Your task to perform on an android device: turn on priority inbox in the gmail app Image 0: 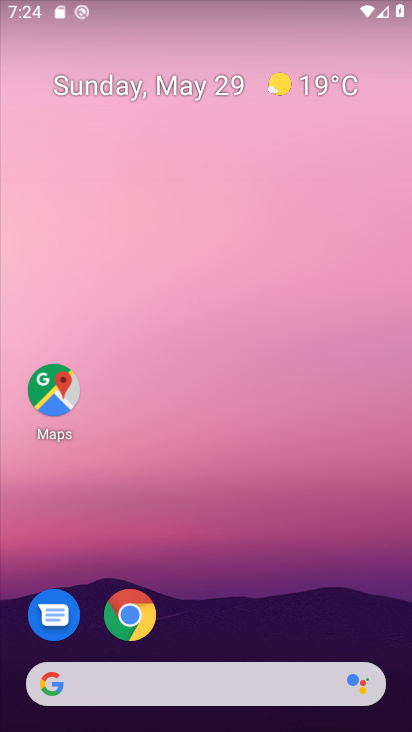
Step 0: drag from (119, 717) to (127, 2)
Your task to perform on an android device: turn on priority inbox in the gmail app Image 1: 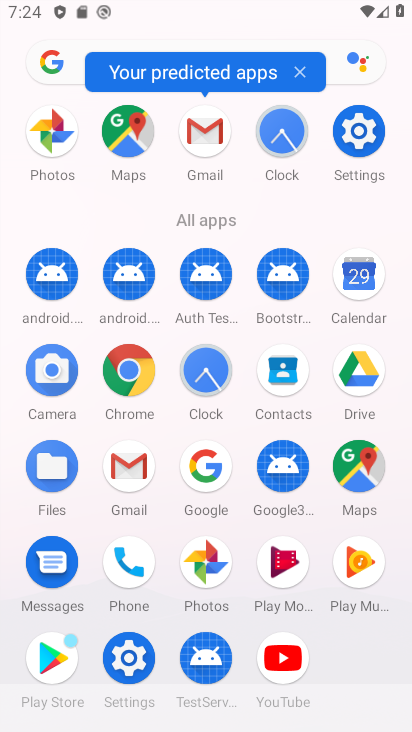
Step 1: click (139, 476)
Your task to perform on an android device: turn on priority inbox in the gmail app Image 2: 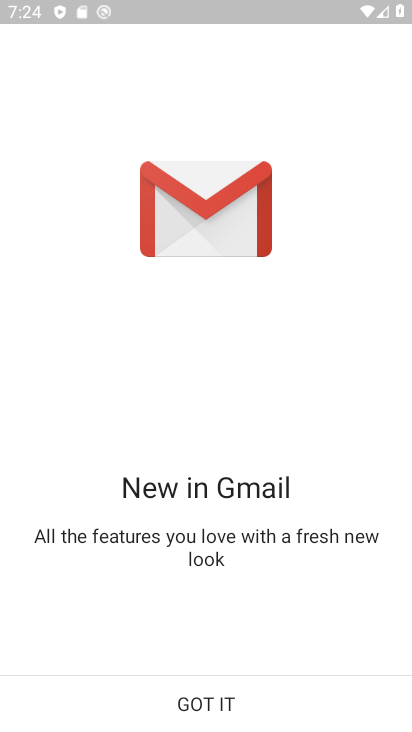
Step 2: click (225, 719)
Your task to perform on an android device: turn on priority inbox in the gmail app Image 3: 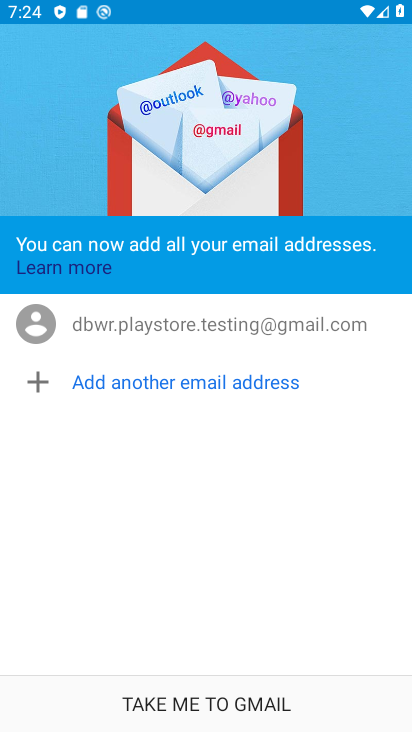
Step 3: click (223, 706)
Your task to perform on an android device: turn on priority inbox in the gmail app Image 4: 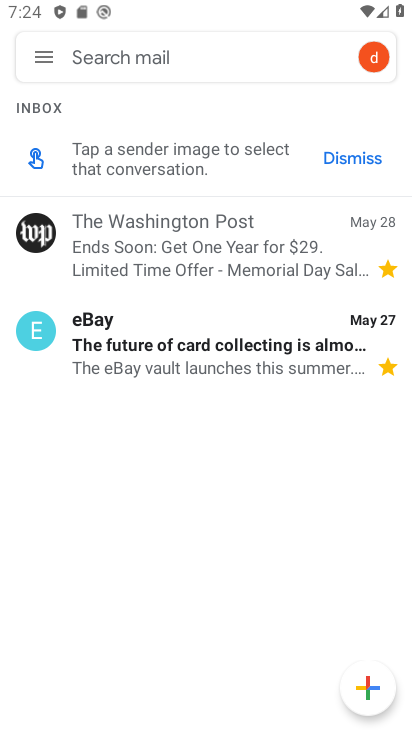
Step 4: click (50, 57)
Your task to perform on an android device: turn on priority inbox in the gmail app Image 5: 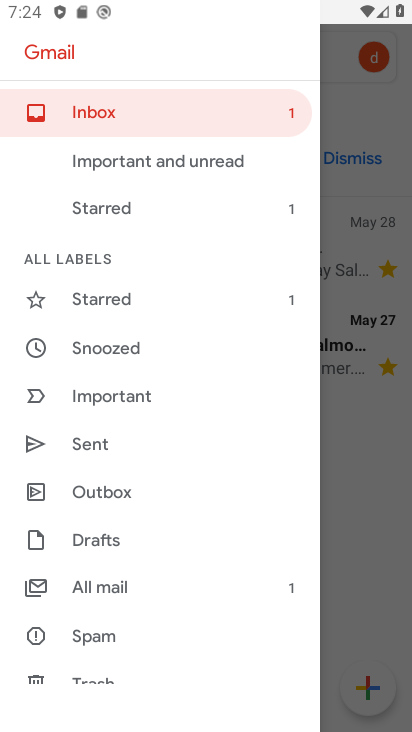
Step 5: drag from (155, 672) to (158, 139)
Your task to perform on an android device: turn on priority inbox in the gmail app Image 6: 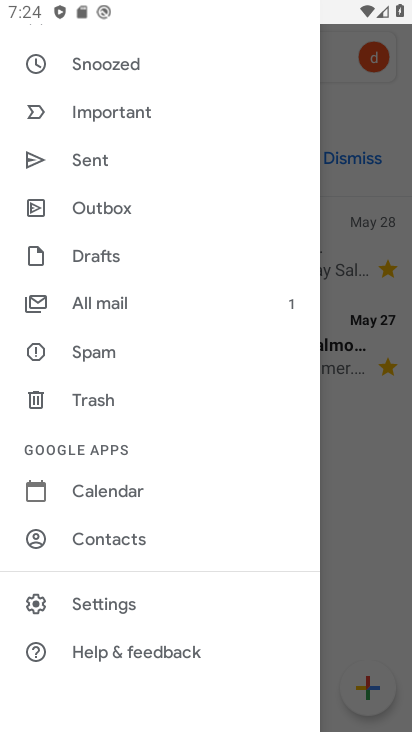
Step 6: click (106, 609)
Your task to perform on an android device: turn on priority inbox in the gmail app Image 7: 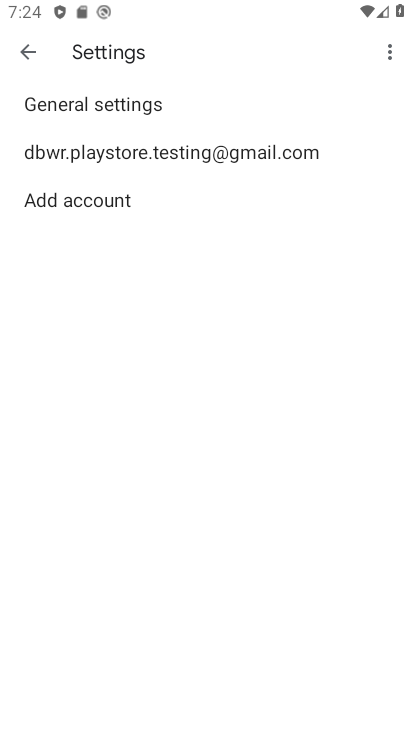
Step 7: click (144, 153)
Your task to perform on an android device: turn on priority inbox in the gmail app Image 8: 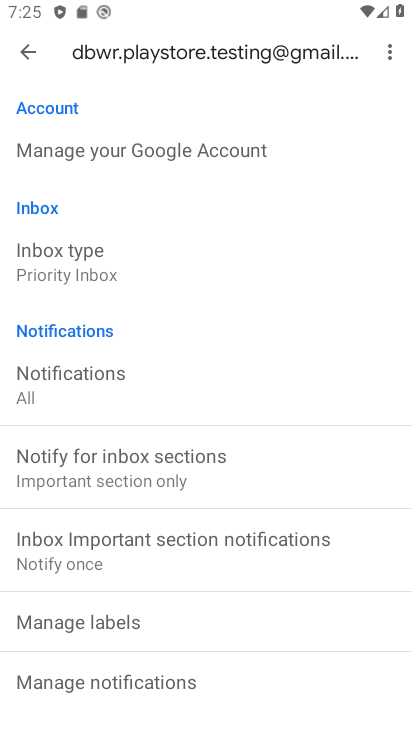
Step 8: click (59, 279)
Your task to perform on an android device: turn on priority inbox in the gmail app Image 9: 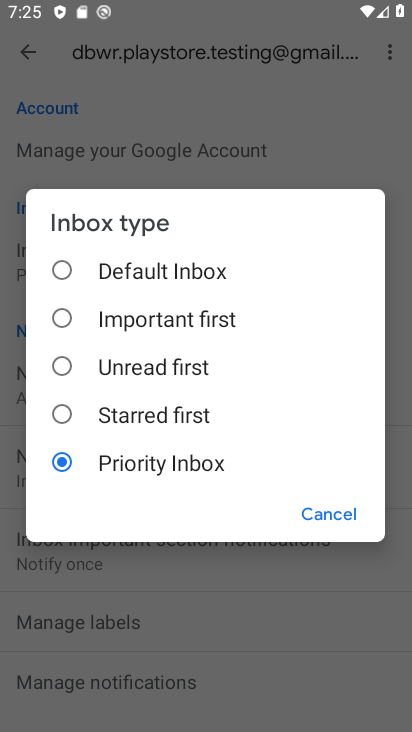
Step 9: task complete